Your task to perform on an android device: Go to internet settings Image 0: 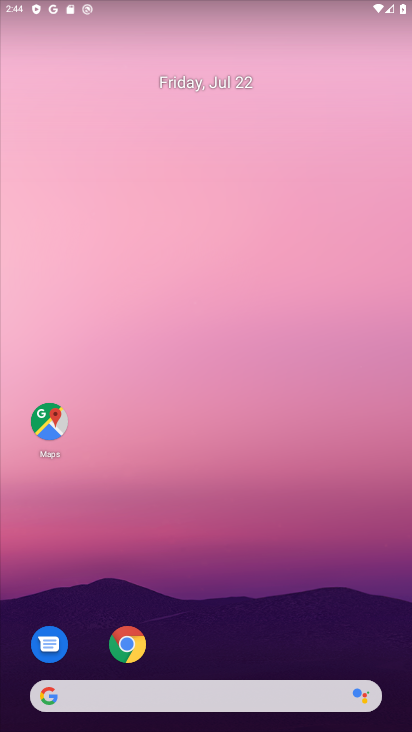
Step 0: drag from (307, 558) to (299, 240)
Your task to perform on an android device: Go to internet settings Image 1: 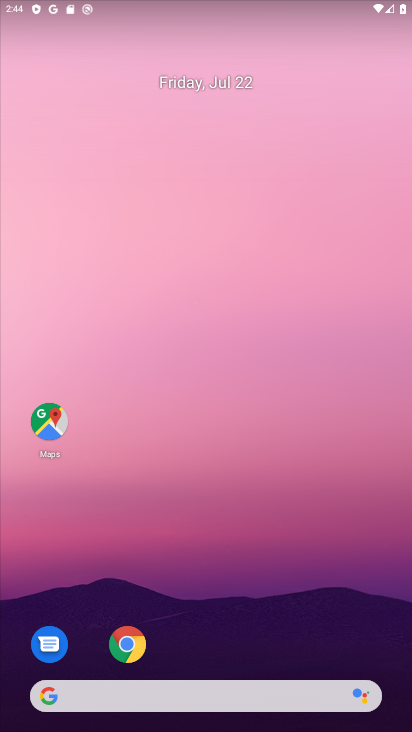
Step 1: drag from (263, 571) to (282, 60)
Your task to perform on an android device: Go to internet settings Image 2: 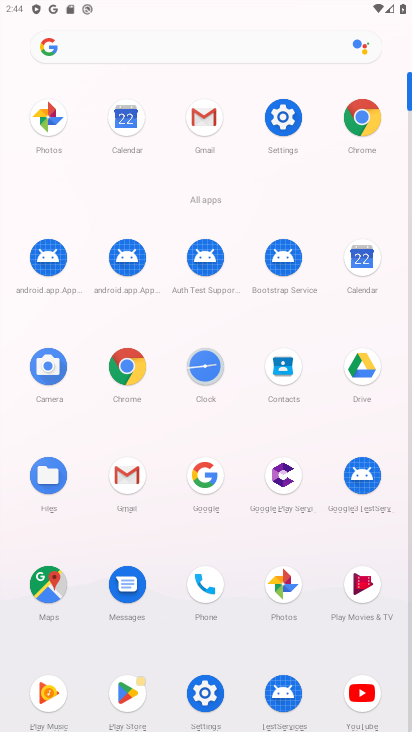
Step 2: click (282, 114)
Your task to perform on an android device: Go to internet settings Image 3: 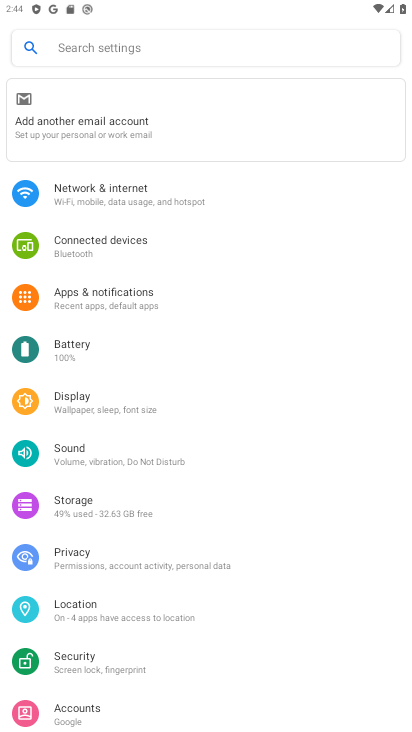
Step 3: click (132, 173)
Your task to perform on an android device: Go to internet settings Image 4: 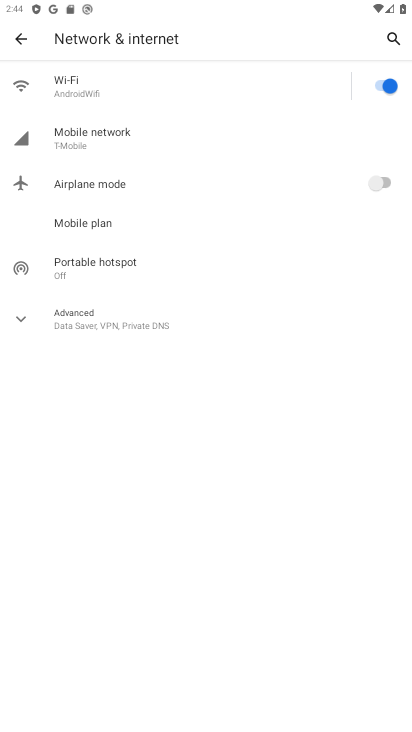
Step 4: task complete